Your task to perform on an android device: Toggle the flashlight Image 0: 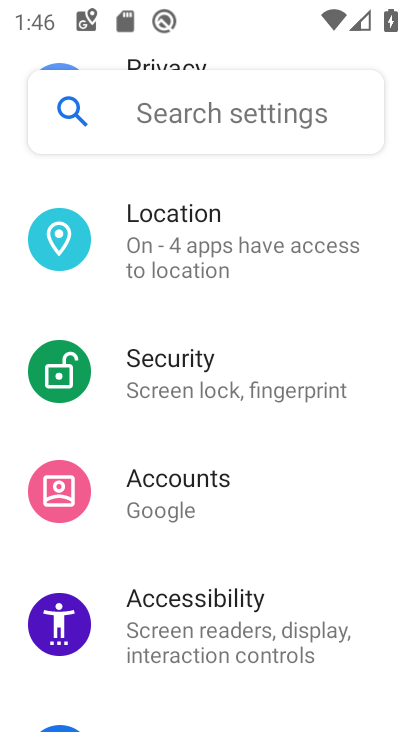
Step 0: drag from (259, 26) to (239, 414)
Your task to perform on an android device: Toggle the flashlight Image 1: 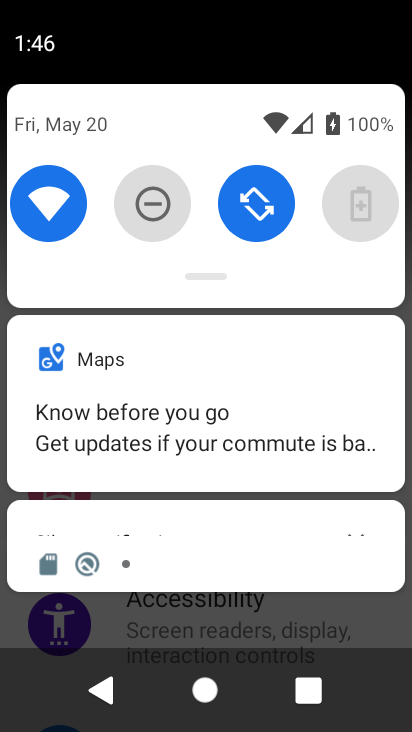
Step 1: task complete